Your task to perform on an android device: change the clock display to digital Image 0: 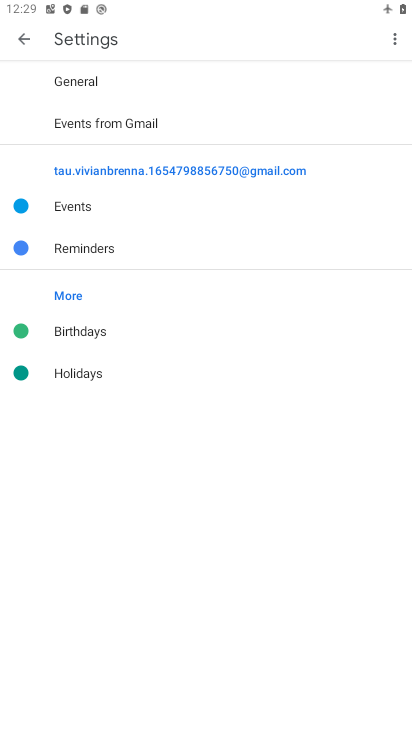
Step 0: press home button
Your task to perform on an android device: change the clock display to digital Image 1: 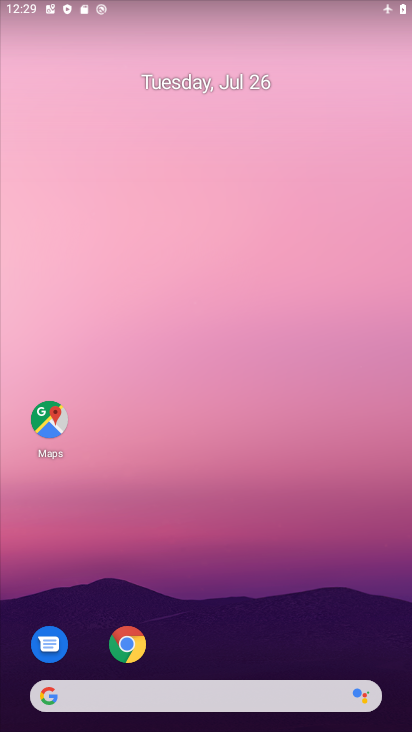
Step 1: drag from (206, 679) to (162, 240)
Your task to perform on an android device: change the clock display to digital Image 2: 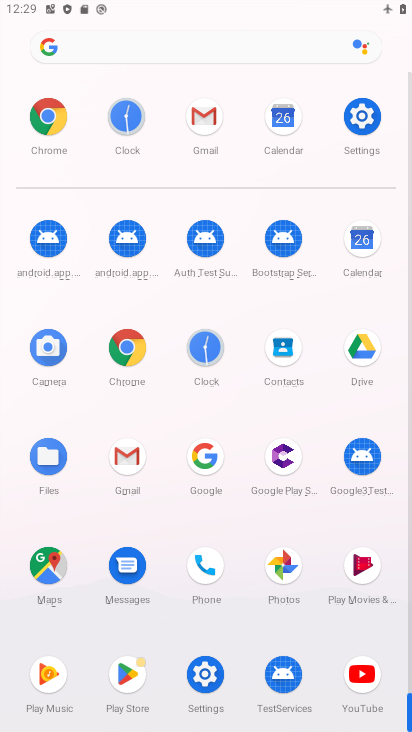
Step 2: click (203, 364)
Your task to perform on an android device: change the clock display to digital Image 3: 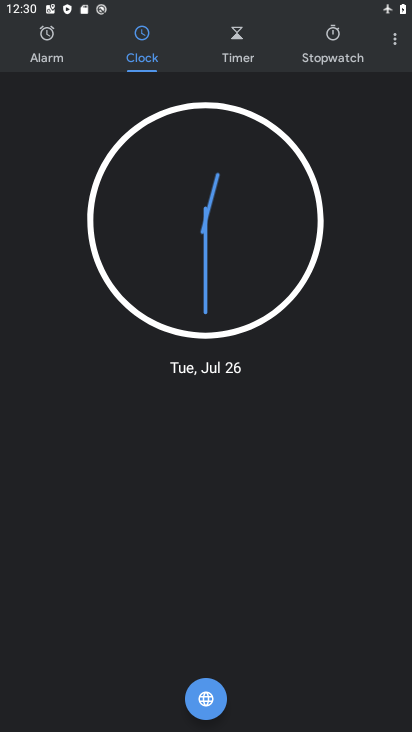
Step 3: click (360, 228)
Your task to perform on an android device: change the clock display to digital Image 4: 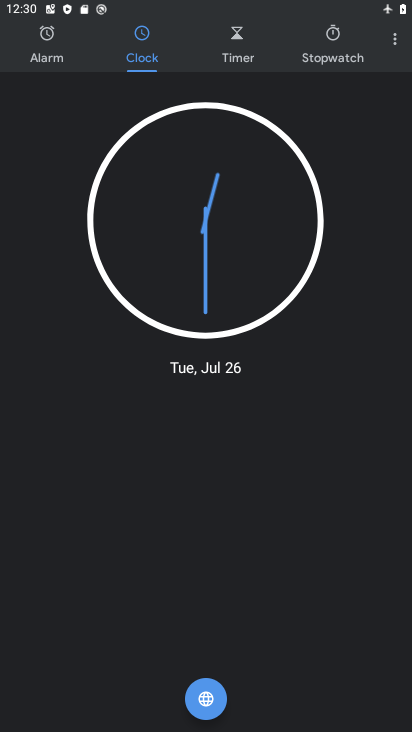
Step 4: click (360, 228)
Your task to perform on an android device: change the clock display to digital Image 5: 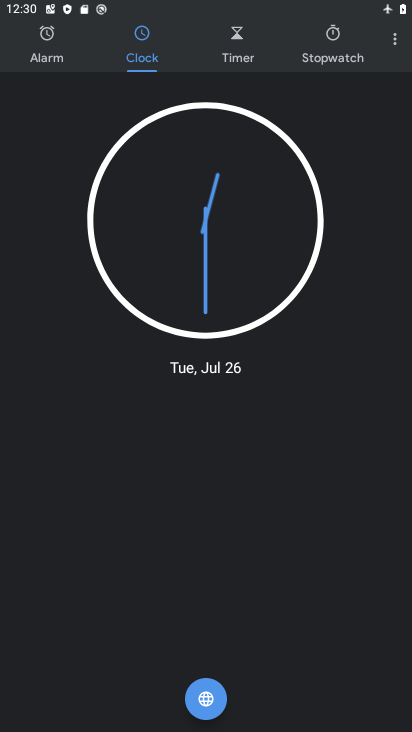
Step 5: click (397, 37)
Your task to perform on an android device: change the clock display to digital Image 6: 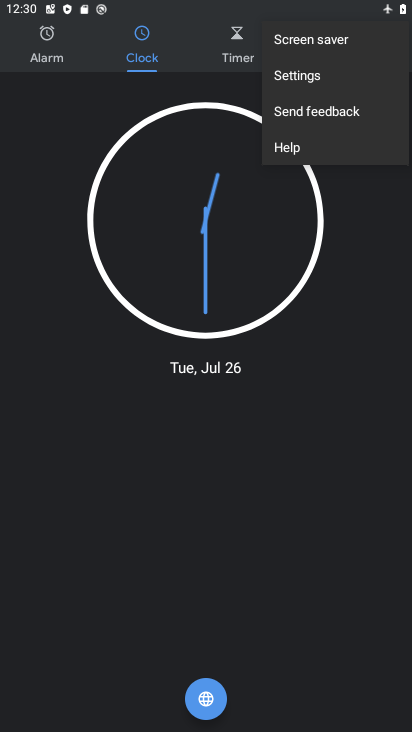
Step 6: click (309, 78)
Your task to perform on an android device: change the clock display to digital Image 7: 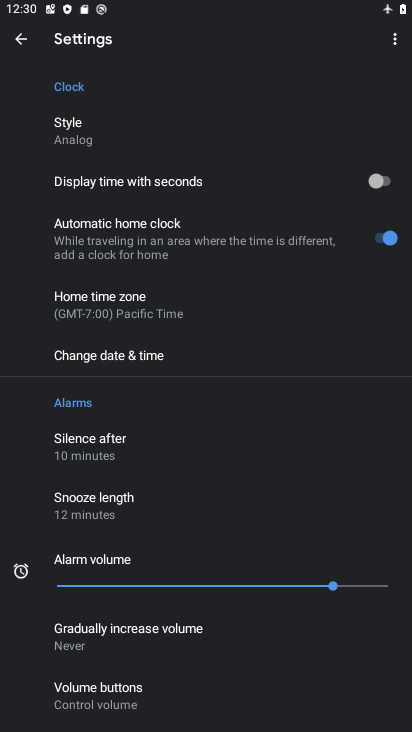
Step 7: click (86, 127)
Your task to perform on an android device: change the clock display to digital Image 8: 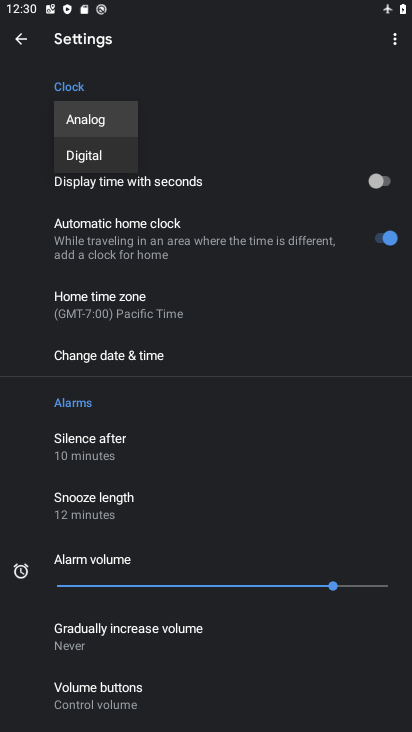
Step 8: click (98, 155)
Your task to perform on an android device: change the clock display to digital Image 9: 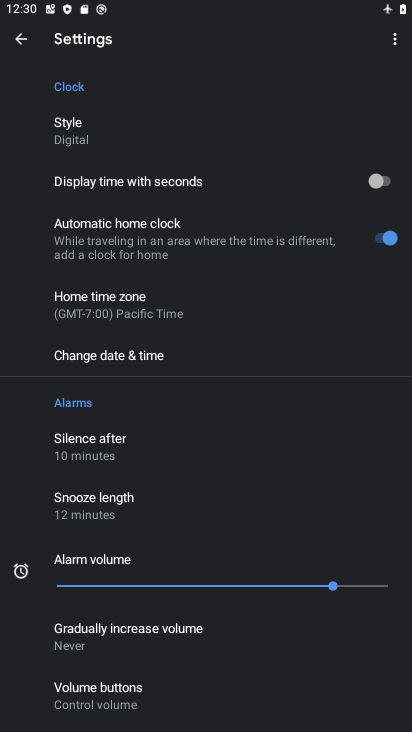
Step 9: task complete